Your task to perform on an android device: open app "Instagram" (install if not already installed) and enter user name: "nobler@yahoo.com" and password: "foraging" Image 0: 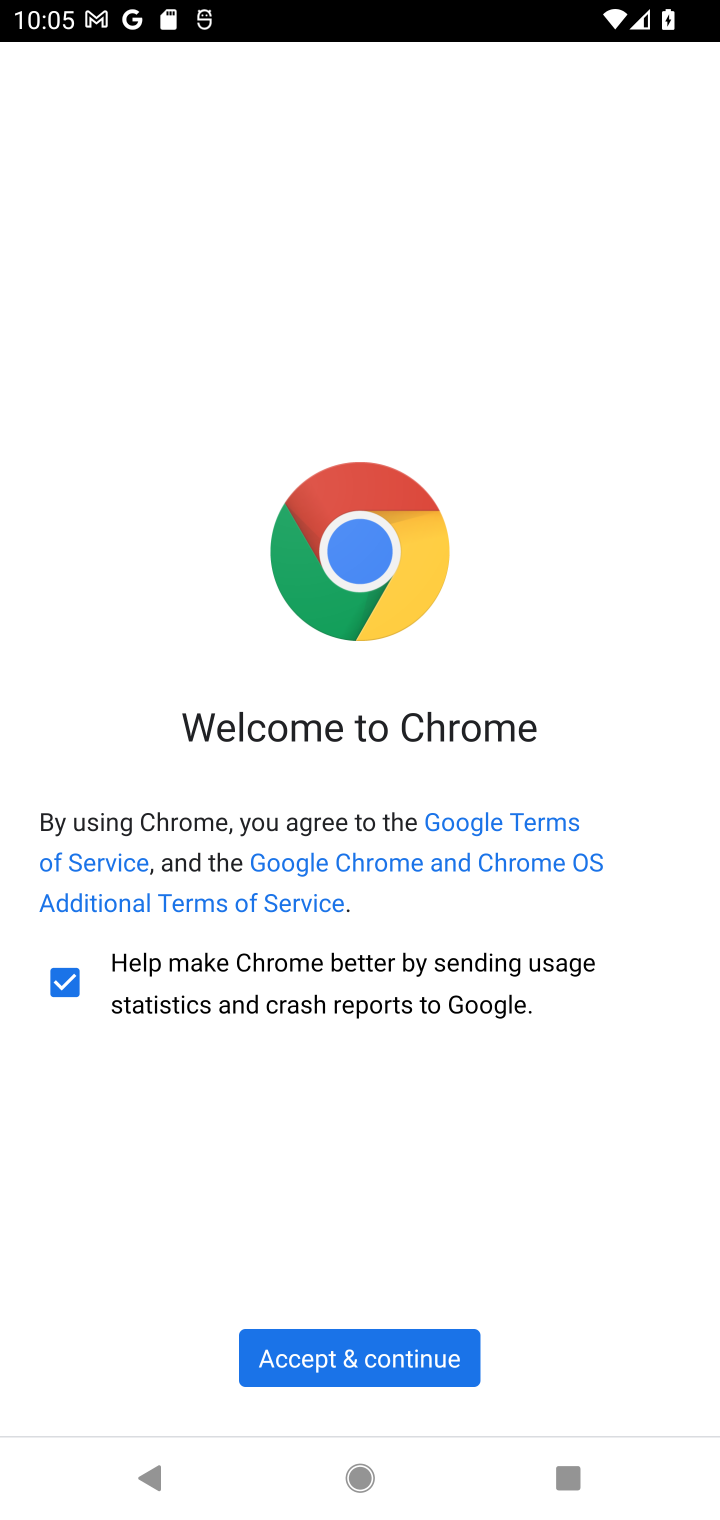
Step 0: press home button
Your task to perform on an android device: open app "Instagram" (install if not already installed) and enter user name: "nobler@yahoo.com" and password: "foraging" Image 1: 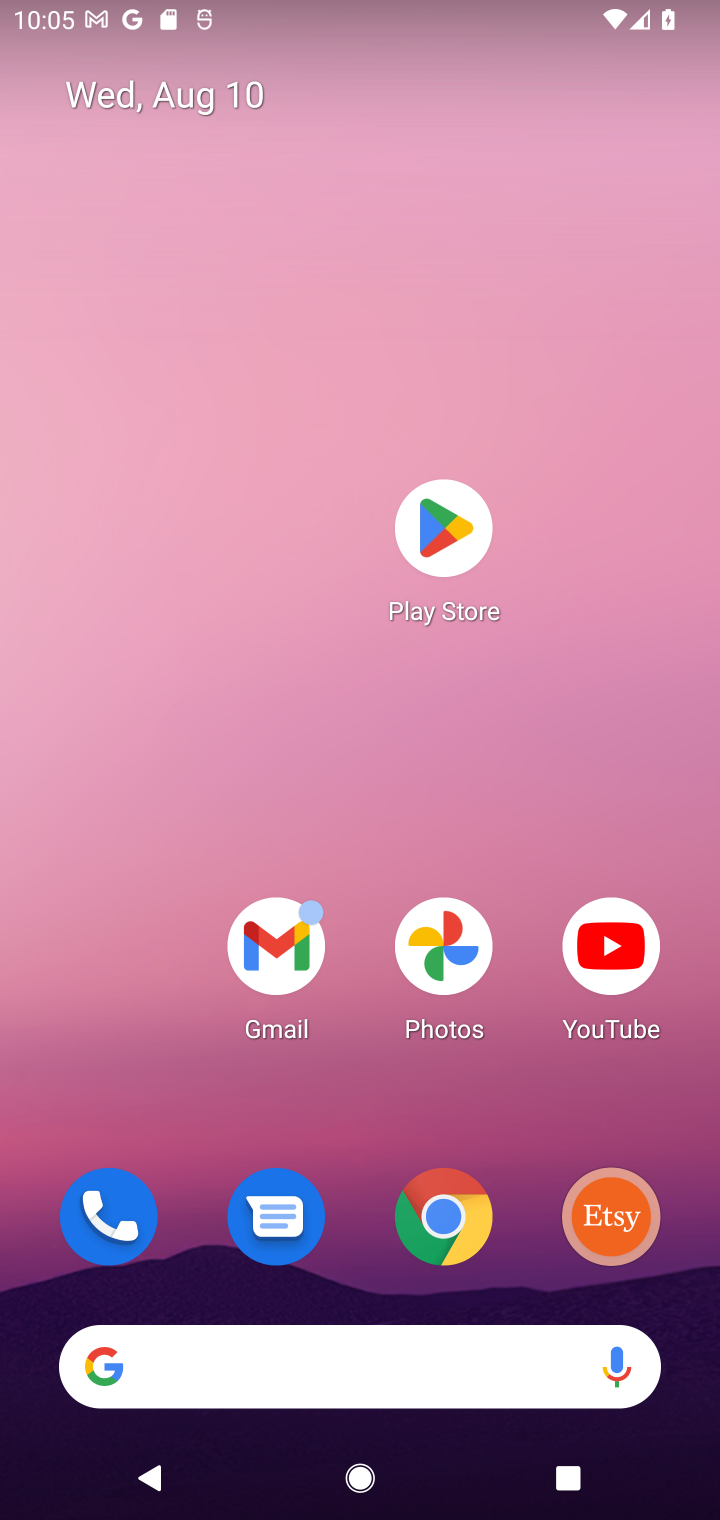
Step 1: click (449, 536)
Your task to perform on an android device: open app "Instagram" (install if not already installed) and enter user name: "nobler@yahoo.com" and password: "foraging" Image 2: 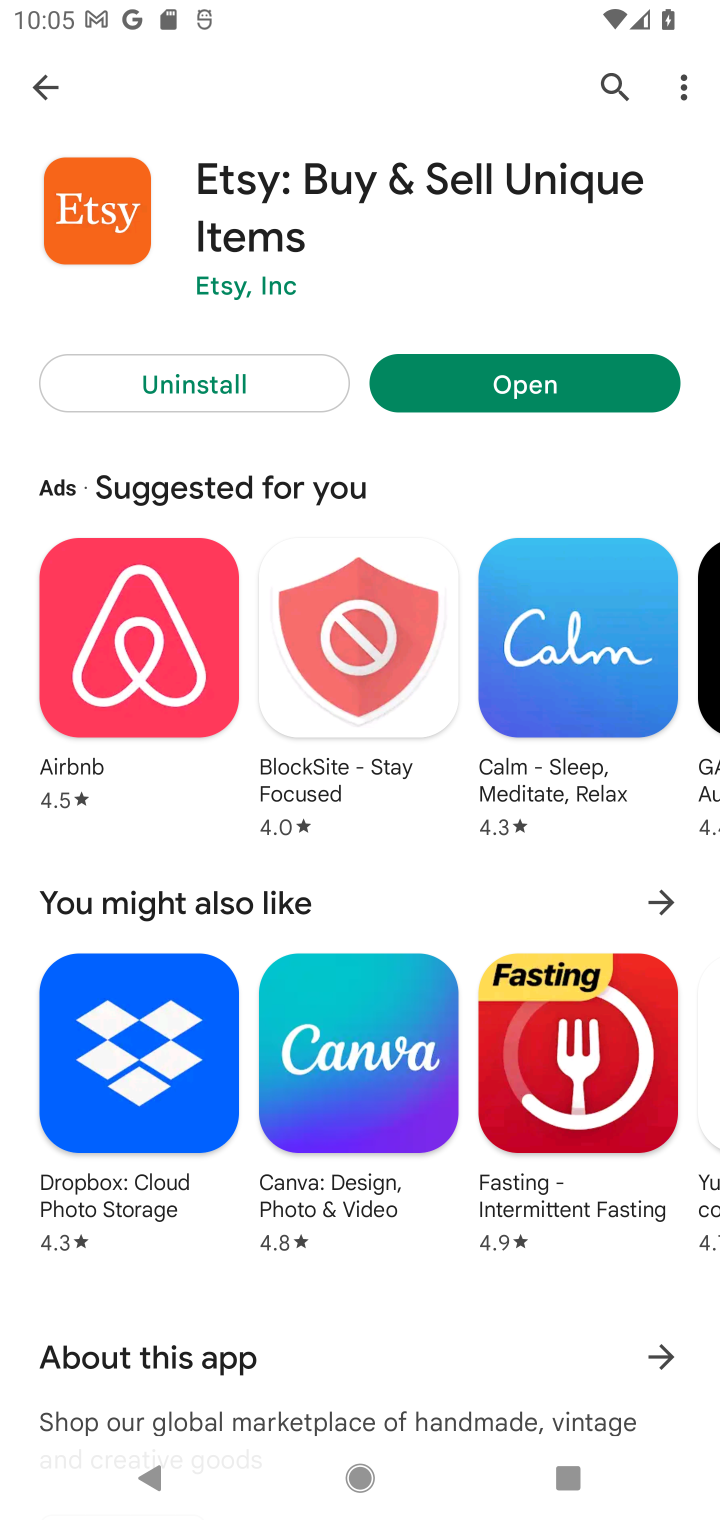
Step 2: click (612, 85)
Your task to perform on an android device: open app "Instagram" (install if not already installed) and enter user name: "nobler@yahoo.com" and password: "foraging" Image 3: 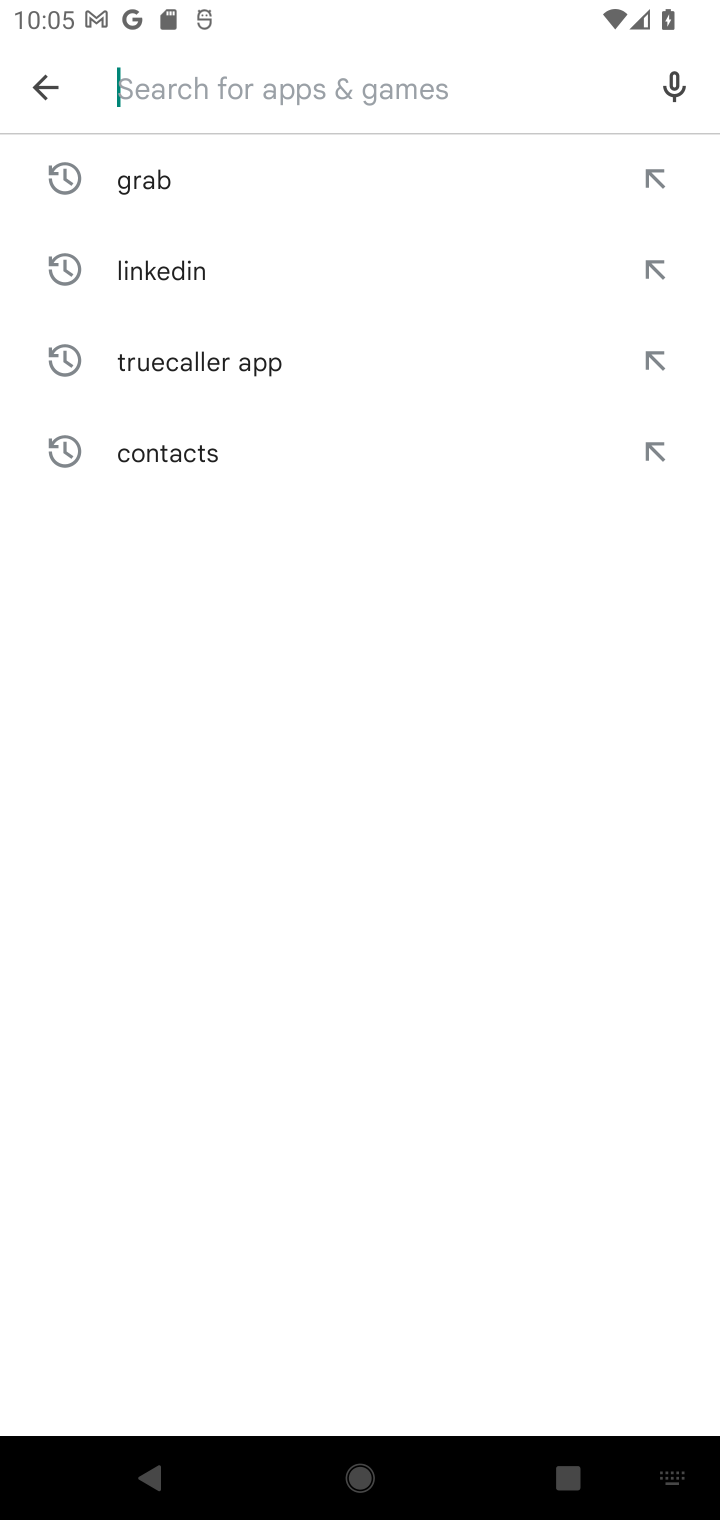
Step 3: type "Instagram"
Your task to perform on an android device: open app "Instagram" (install if not already installed) and enter user name: "nobler@yahoo.com" and password: "foraging" Image 4: 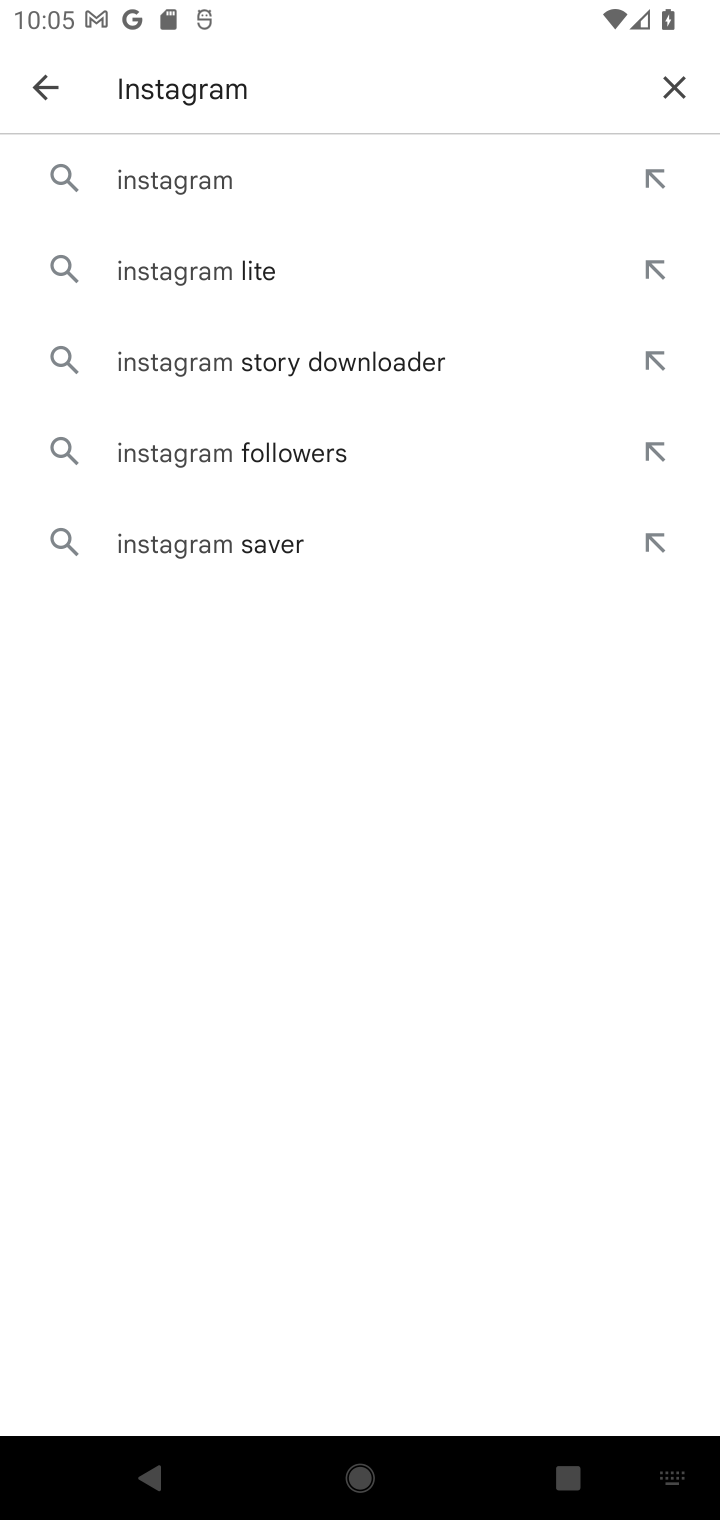
Step 4: click (207, 176)
Your task to perform on an android device: open app "Instagram" (install if not already installed) and enter user name: "nobler@yahoo.com" and password: "foraging" Image 5: 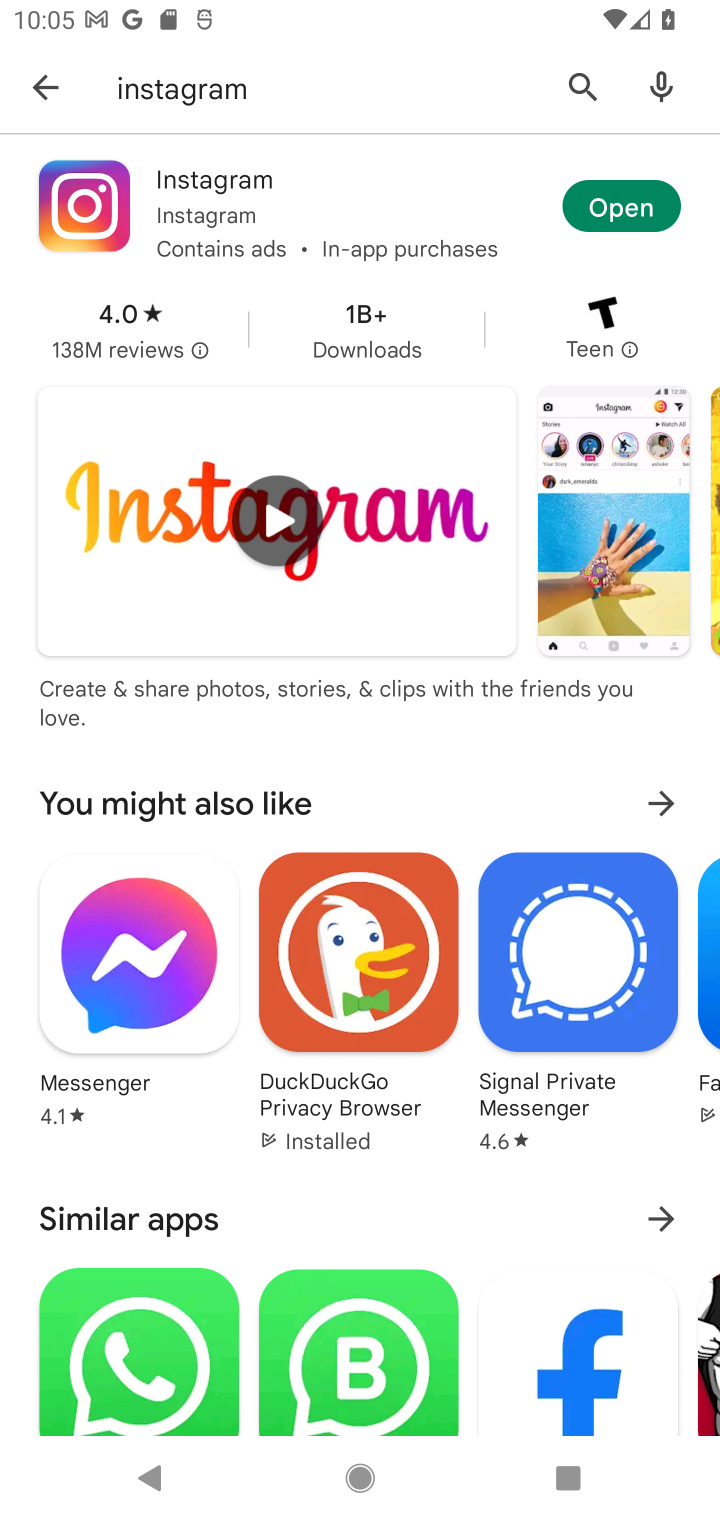
Step 5: click (643, 208)
Your task to perform on an android device: open app "Instagram" (install if not already installed) and enter user name: "nobler@yahoo.com" and password: "foraging" Image 6: 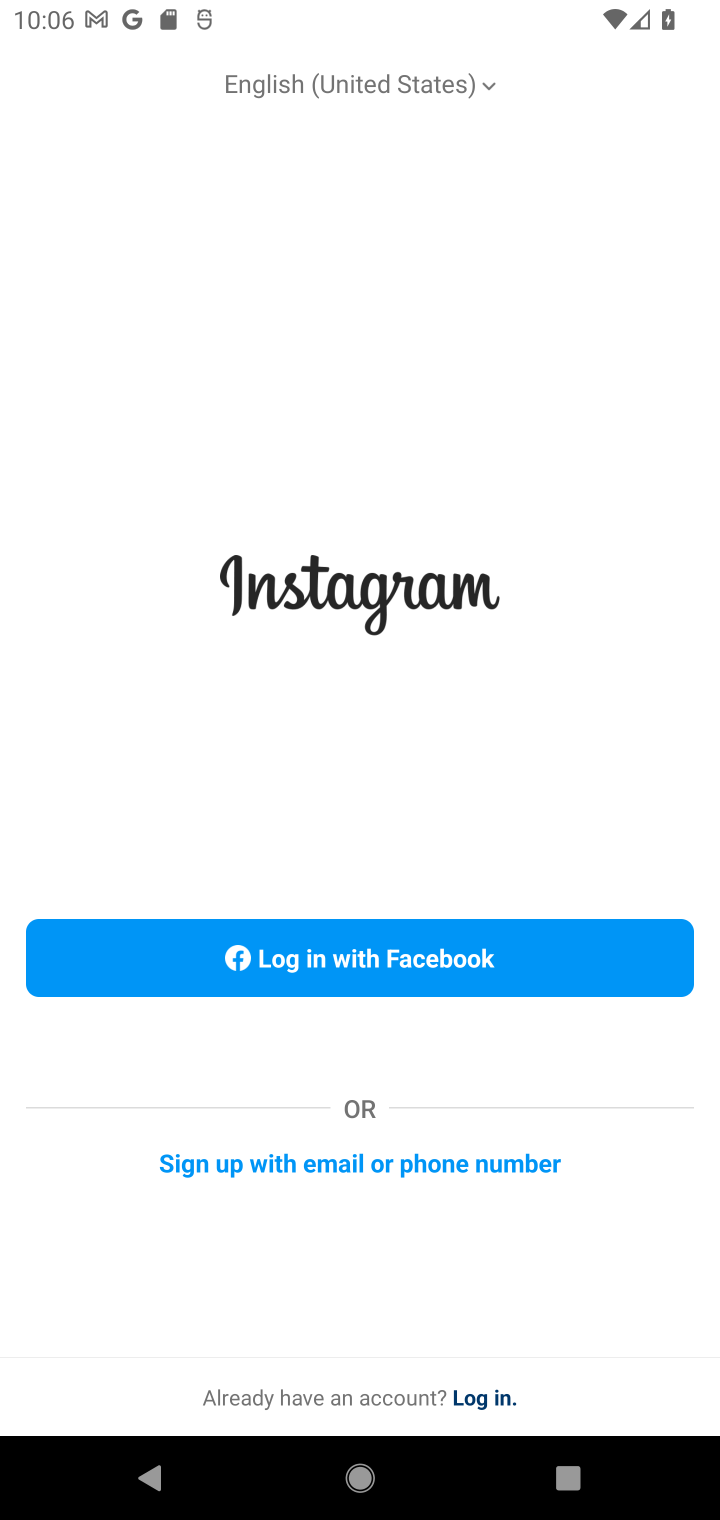
Step 6: click (415, 1164)
Your task to perform on an android device: open app "Instagram" (install if not already installed) and enter user name: "nobler@yahoo.com" and password: "foraging" Image 7: 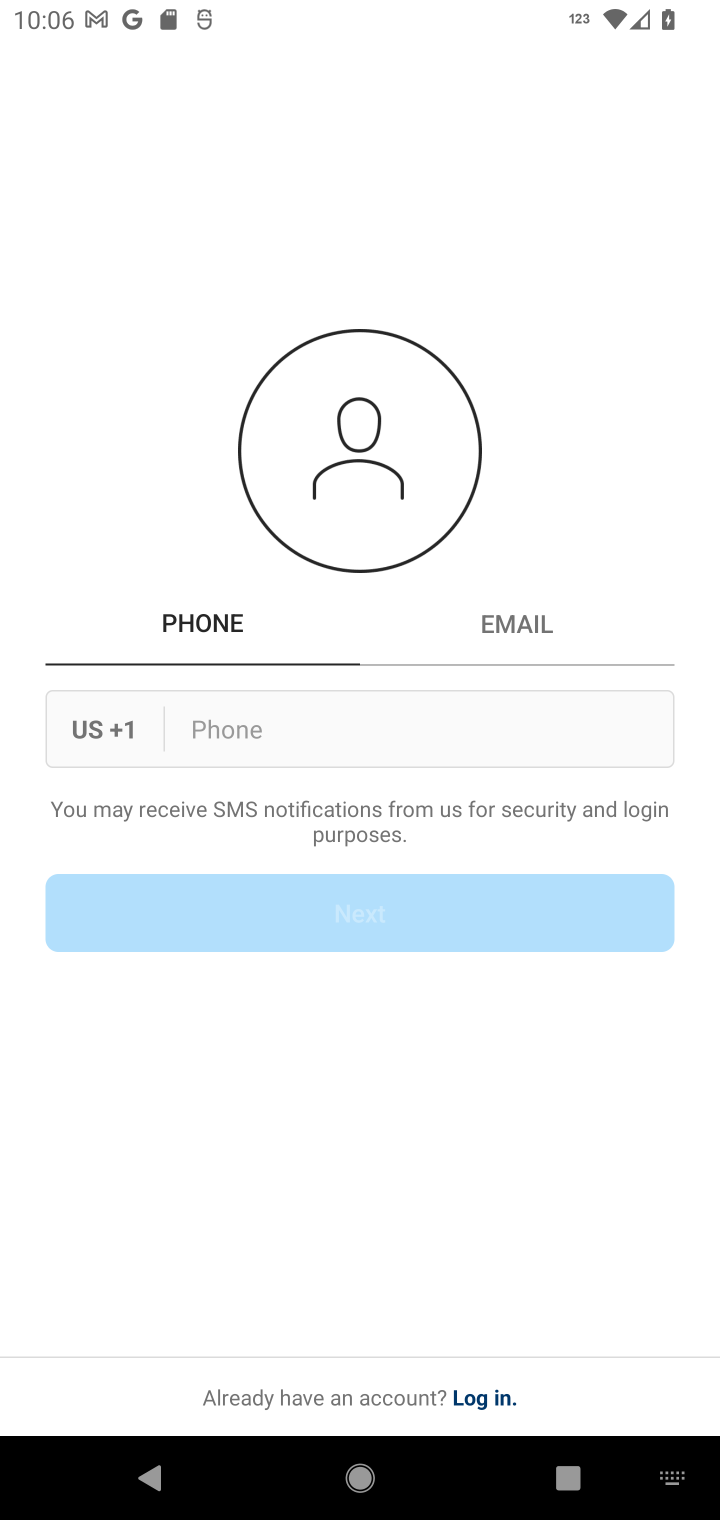
Step 7: click (526, 616)
Your task to perform on an android device: open app "Instagram" (install if not already installed) and enter user name: "nobler@yahoo.com" and password: "foraging" Image 8: 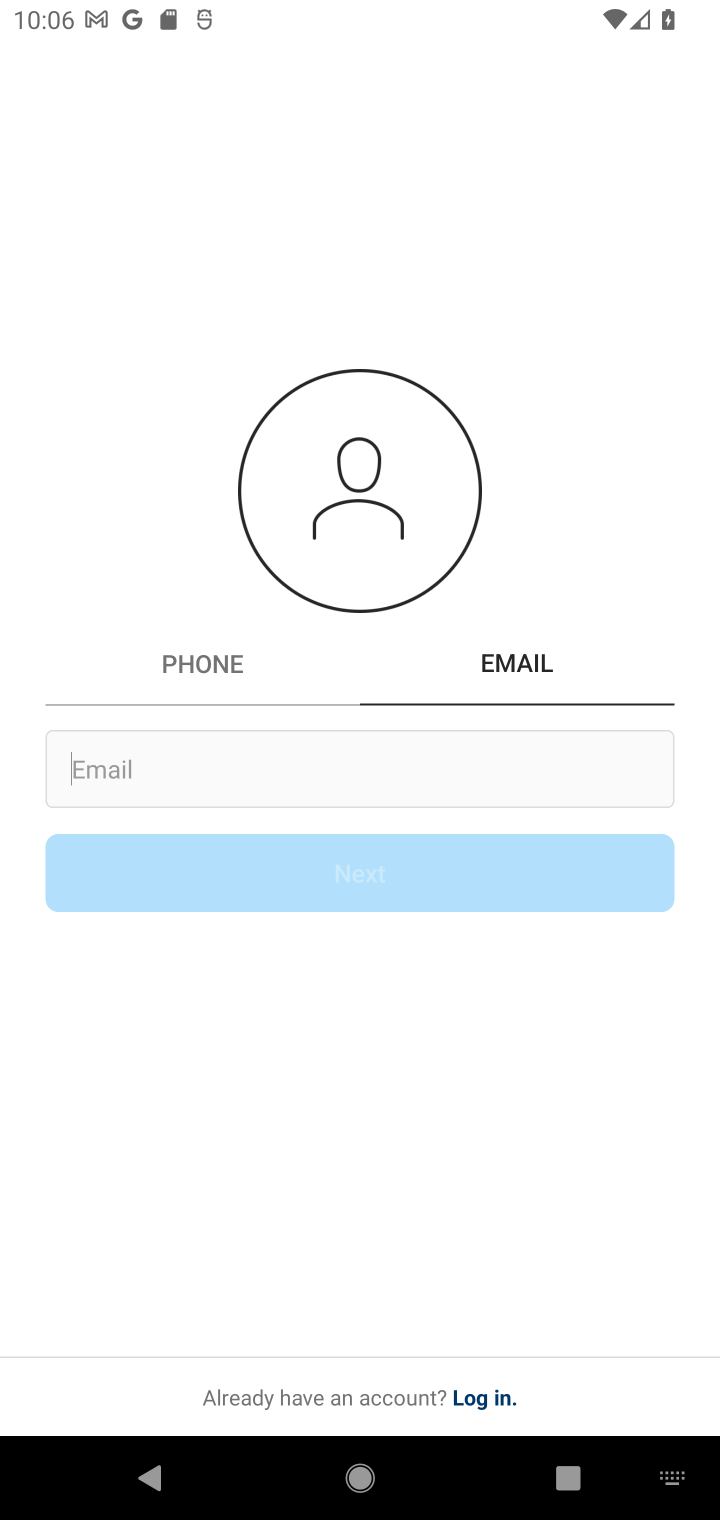
Step 8: type "nobler@yahoo.com"
Your task to perform on an android device: open app "Instagram" (install if not already installed) and enter user name: "nobler@yahoo.com" and password: "foraging" Image 9: 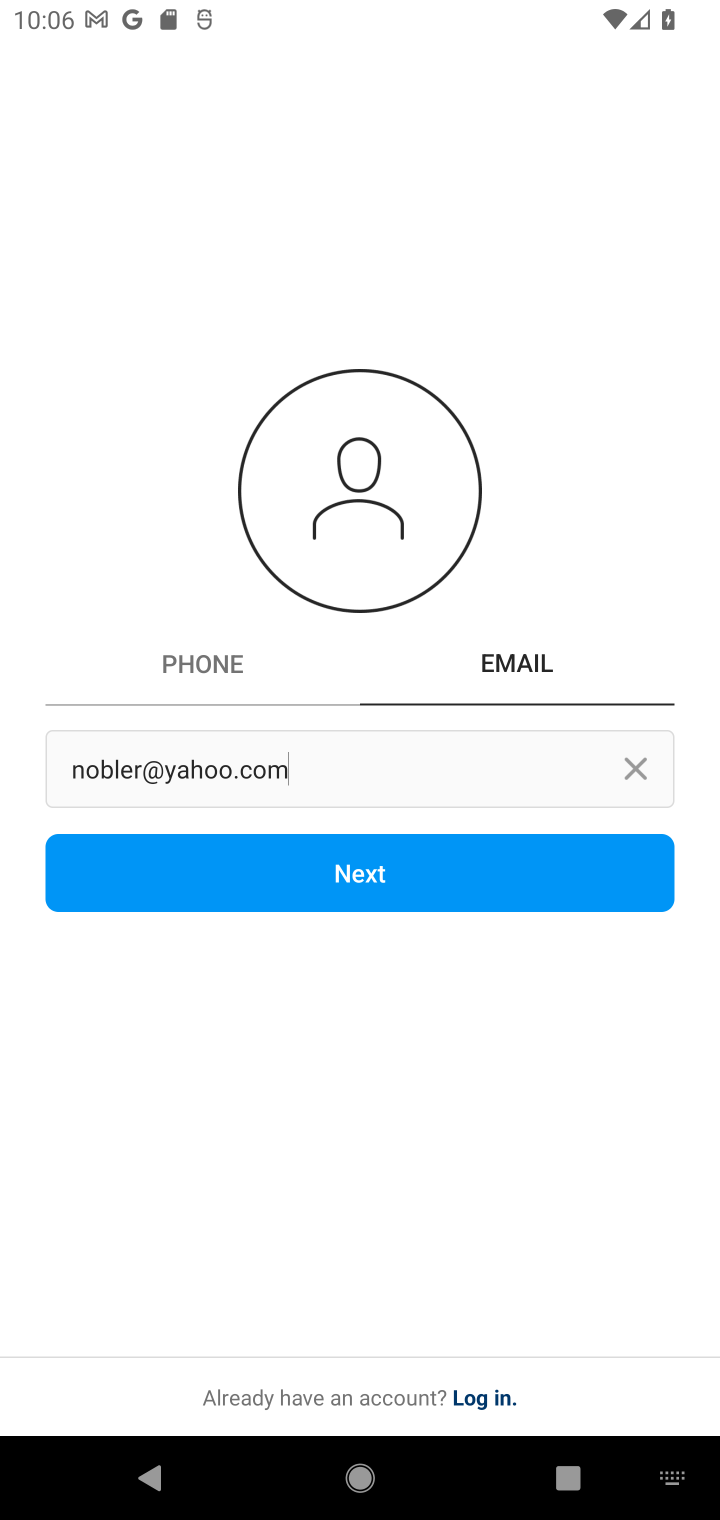
Step 9: click (469, 888)
Your task to perform on an android device: open app "Instagram" (install if not already installed) and enter user name: "nobler@yahoo.com" and password: "foraging" Image 10: 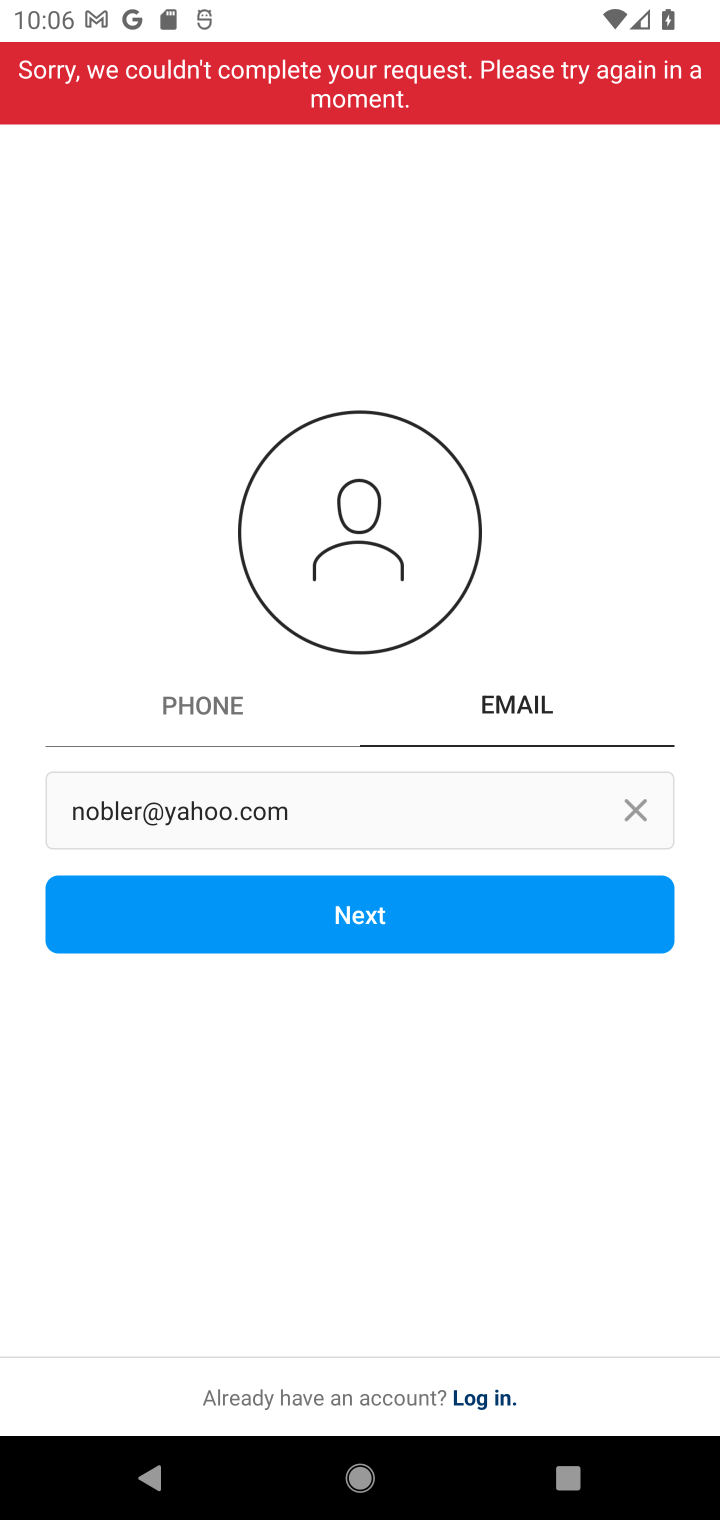
Step 10: click (363, 929)
Your task to perform on an android device: open app "Instagram" (install if not already installed) and enter user name: "nobler@yahoo.com" and password: "foraging" Image 11: 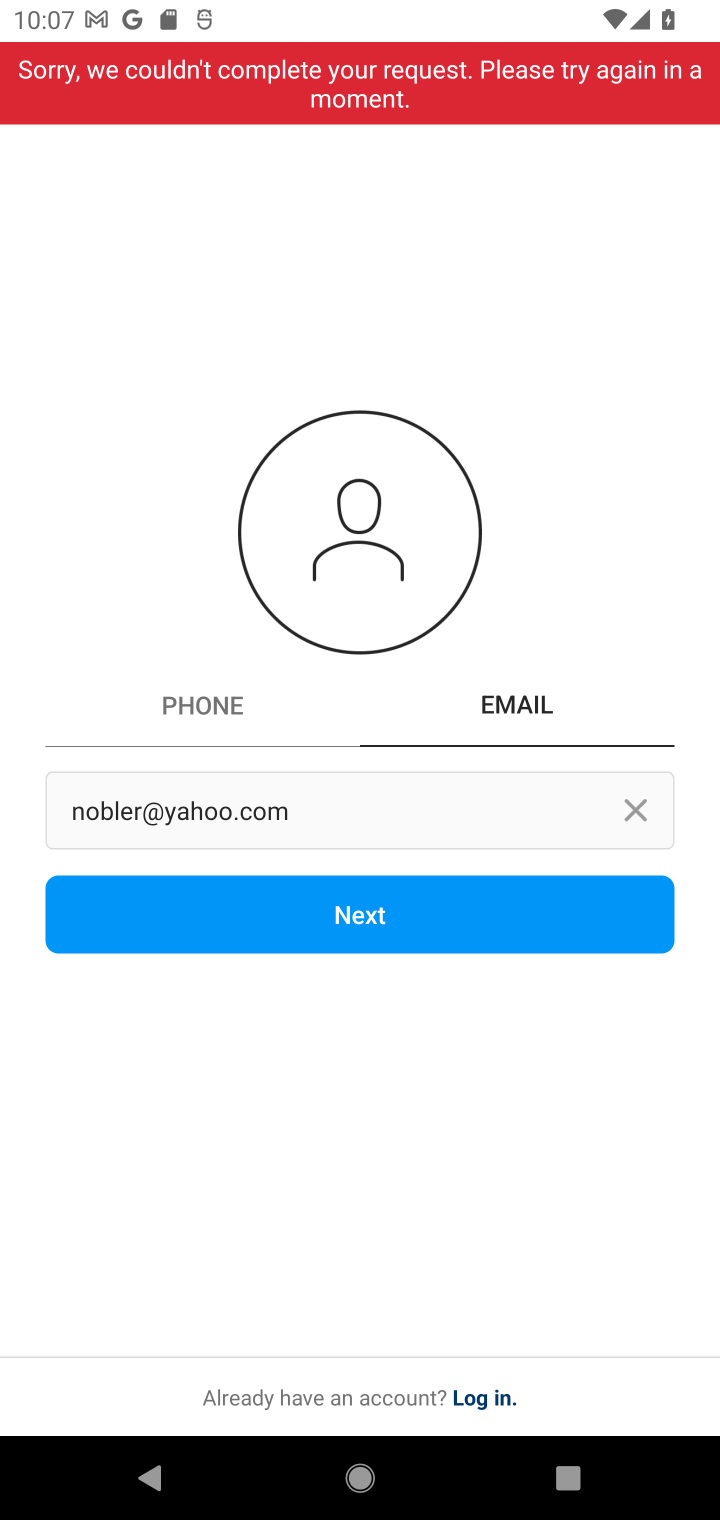
Step 11: task complete